Your task to perform on an android device: delete browsing data in the chrome app Image 0: 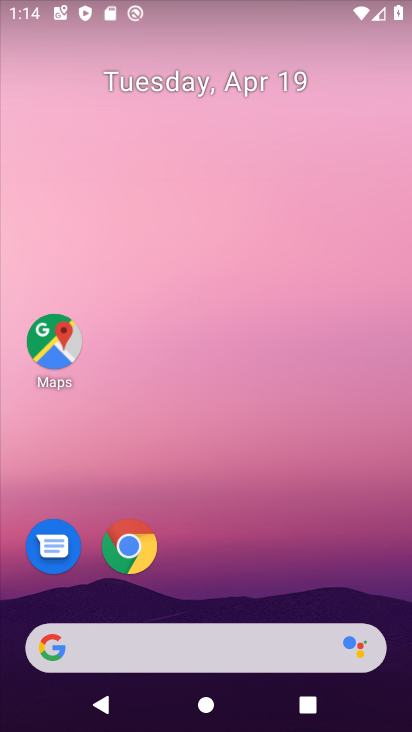
Step 0: click (130, 545)
Your task to perform on an android device: delete browsing data in the chrome app Image 1: 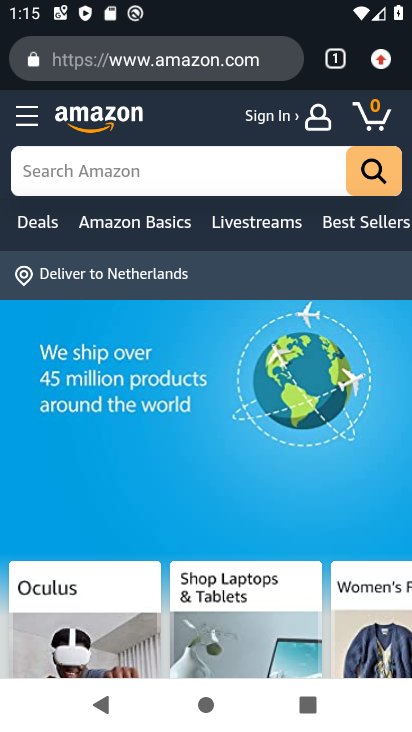
Step 1: click (382, 57)
Your task to perform on an android device: delete browsing data in the chrome app Image 2: 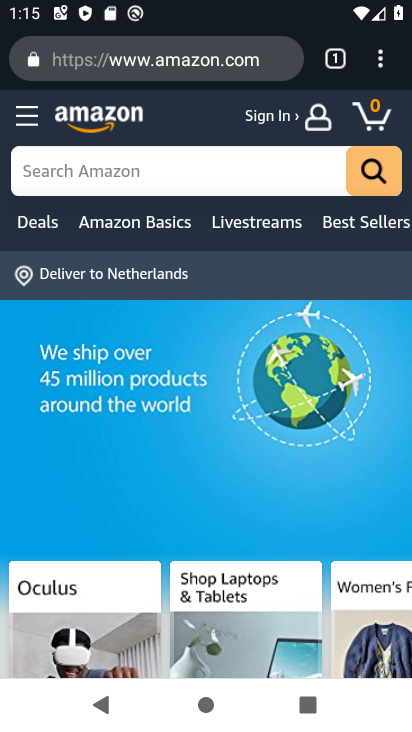
Step 2: click (382, 56)
Your task to perform on an android device: delete browsing data in the chrome app Image 3: 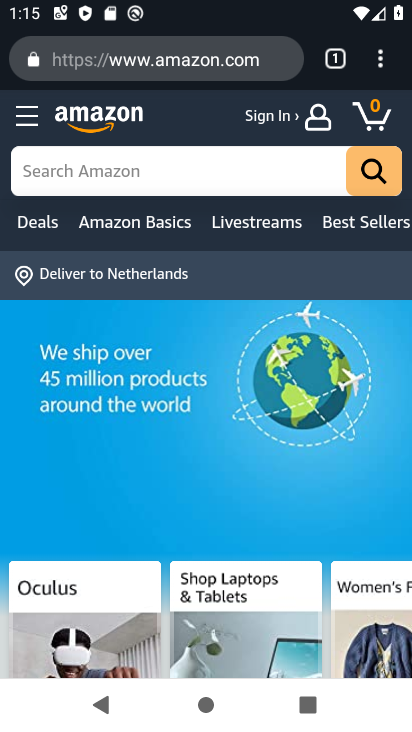
Step 3: click (386, 54)
Your task to perform on an android device: delete browsing data in the chrome app Image 4: 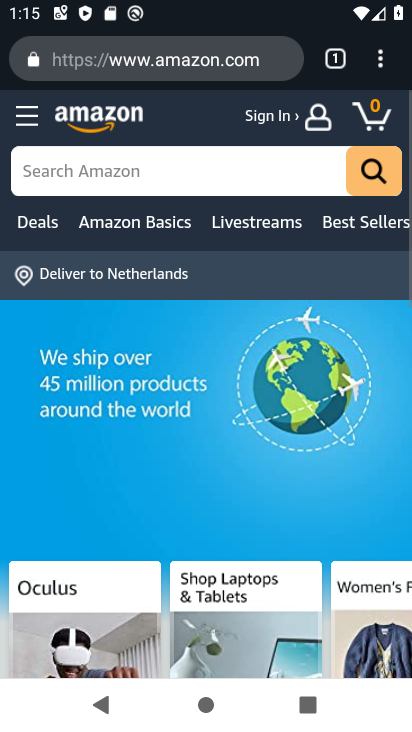
Step 4: click (368, 59)
Your task to perform on an android device: delete browsing data in the chrome app Image 5: 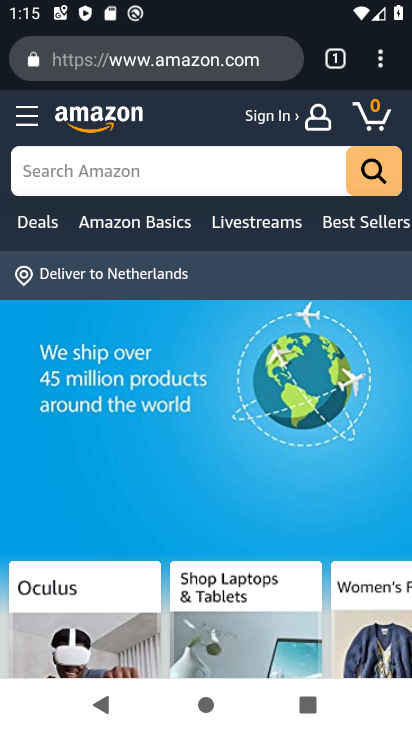
Step 5: click (376, 61)
Your task to perform on an android device: delete browsing data in the chrome app Image 6: 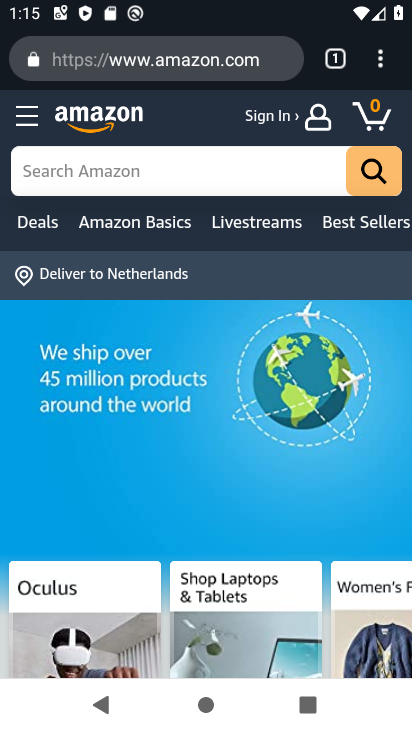
Step 6: drag from (385, 67) to (190, 400)
Your task to perform on an android device: delete browsing data in the chrome app Image 7: 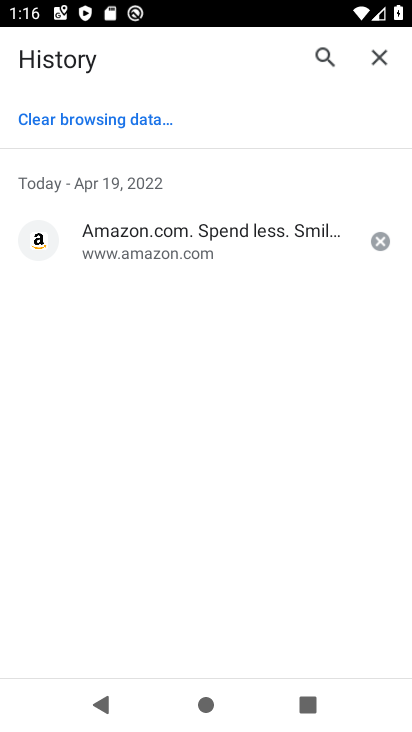
Step 7: click (117, 120)
Your task to perform on an android device: delete browsing data in the chrome app Image 8: 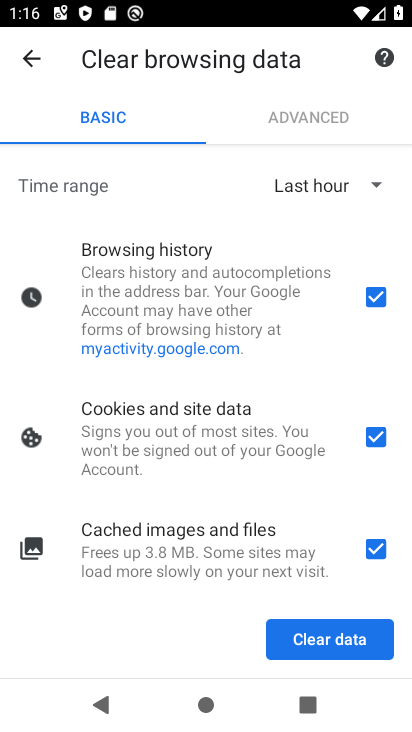
Step 8: click (330, 641)
Your task to perform on an android device: delete browsing data in the chrome app Image 9: 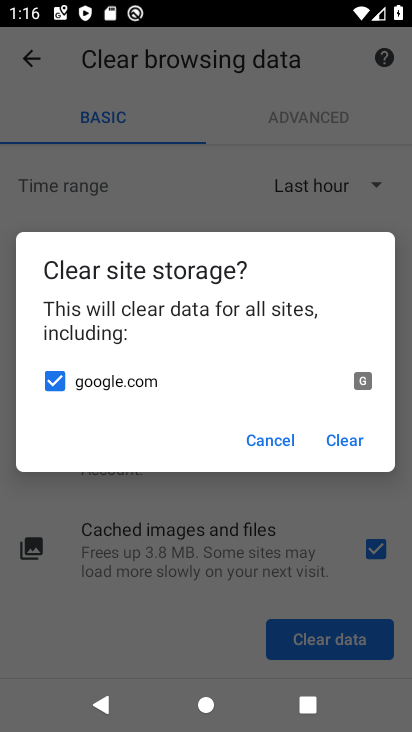
Step 9: click (343, 438)
Your task to perform on an android device: delete browsing data in the chrome app Image 10: 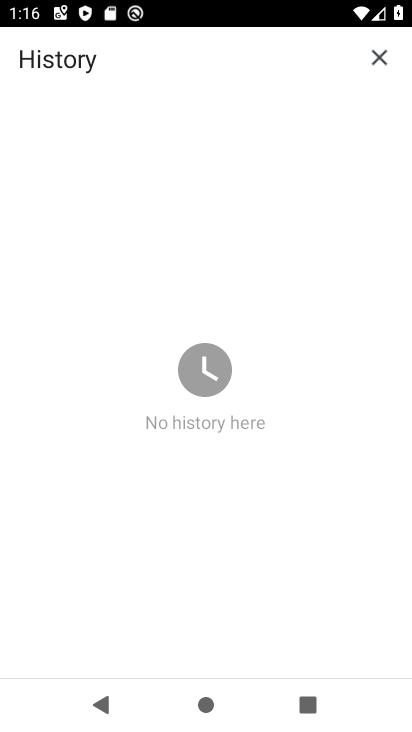
Step 10: task complete